Your task to perform on an android device: Open Youtube and go to "Your channel" Image 0: 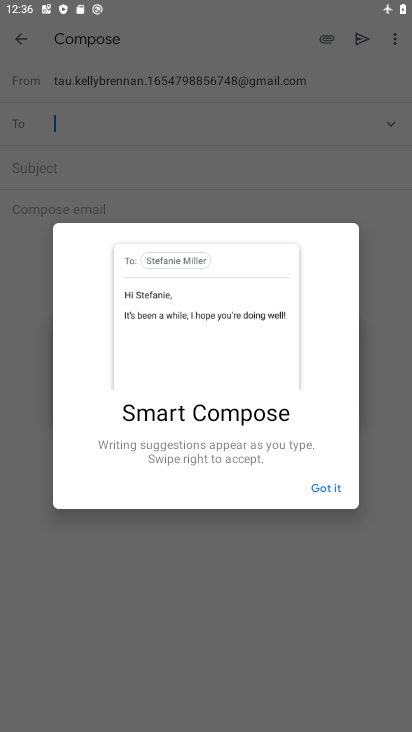
Step 0: press home button
Your task to perform on an android device: Open Youtube and go to "Your channel" Image 1: 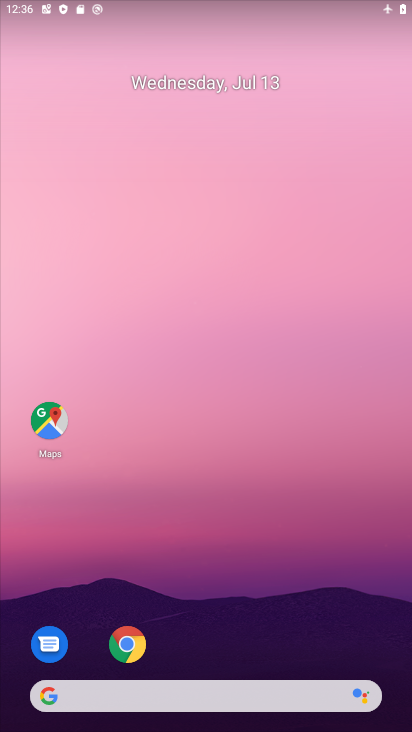
Step 1: drag from (286, 648) to (198, 116)
Your task to perform on an android device: Open Youtube and go to "Your channel" Image 2: 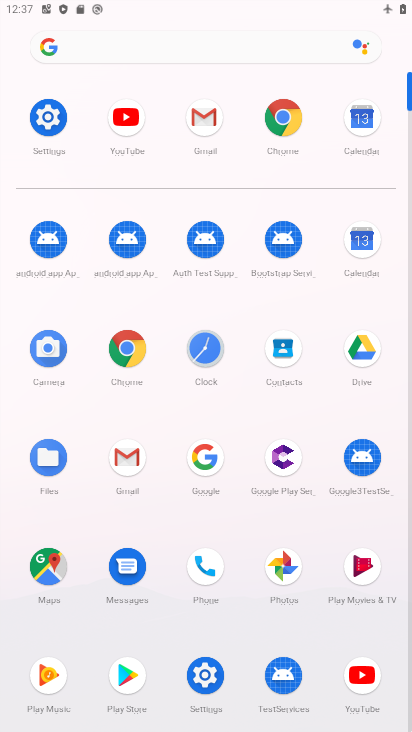
Step 2: click (364, 674)
Your task to perform on an android device: Open Youtube and go to "Your channel" Image 3: 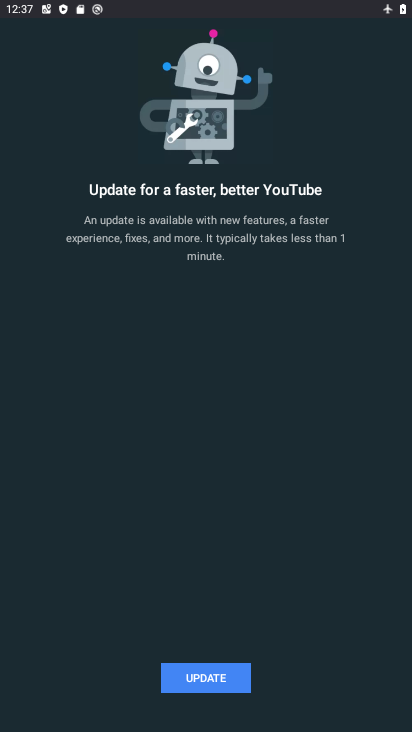
Step 3: task complete